Your task to perform on an android device: Go to ESPN.com Image 0: 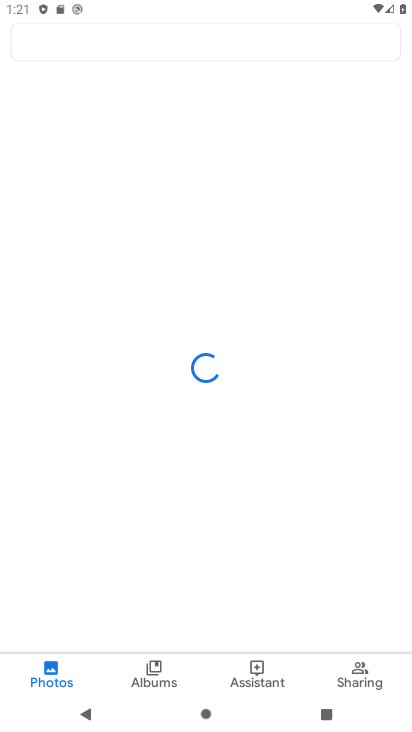
Step 0: press home button
Your task to perform on an android device: Go to ESPN.com Image 1: 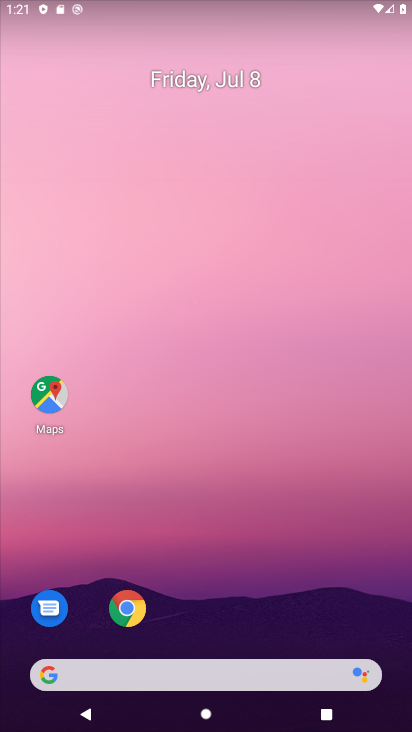
Step 1: drag from (173, 678) to (259, 225)
Your task to perform on an android device: Go to ESPN.com Image 2: 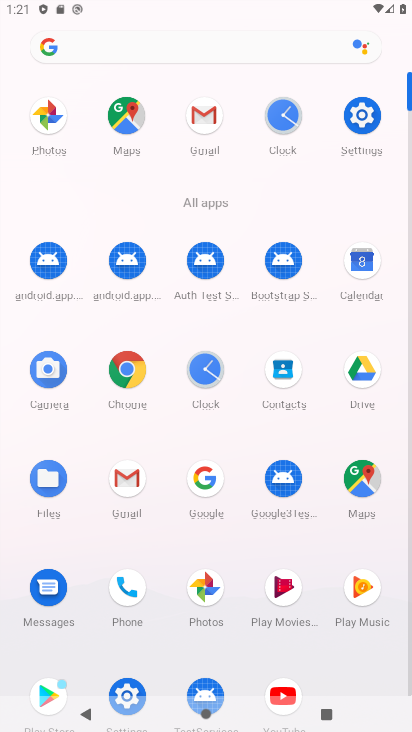
Step 2: click (133, 363)
Your task to perform on an android device: Go to ESPN.com Image 3: 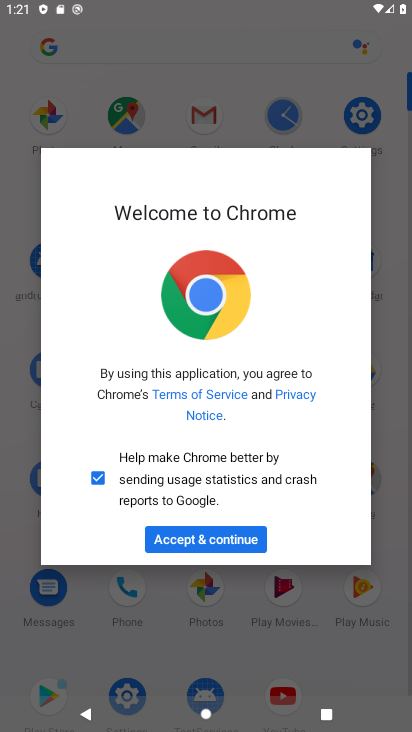
Step 3: click (253, 549)
Your task to perform on an android device: Go to ESPN.com Image 4: 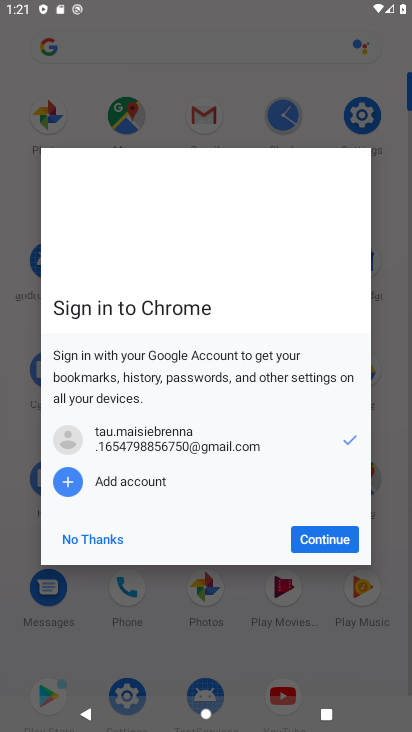
Step 4: click (314, 535)
Your task to perform on an android device: Go to ESPN.com Image 5: 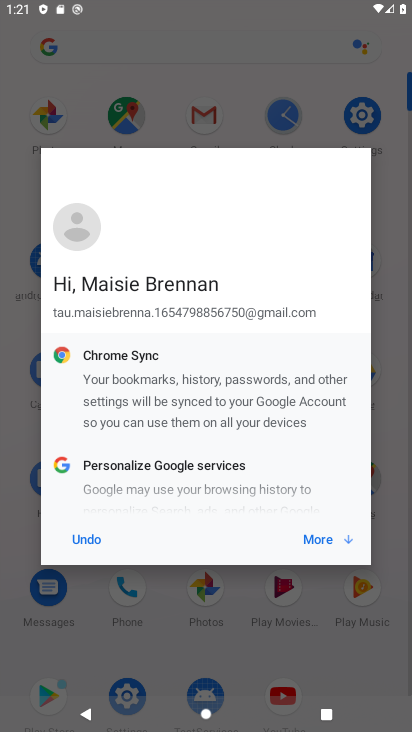
Step 5: click (337, 544)
Your task to perform on an android device: Go to ESPN.com Image 6: 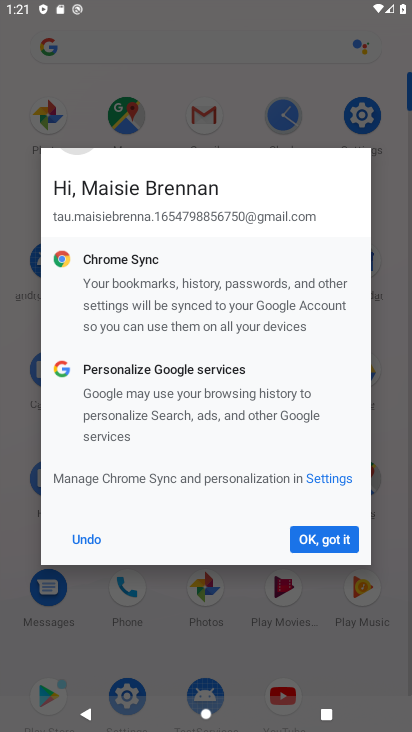
Step 6: click (337, 544)
Your task to perform on an android device: Go to ESPN.com Image 7: 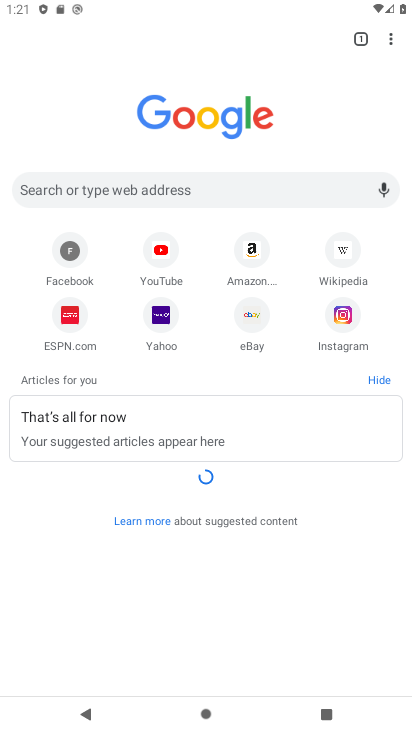
Step 7: click (77, 327)
Your task to perform on an android device: Go to ESPN.com Image 8: 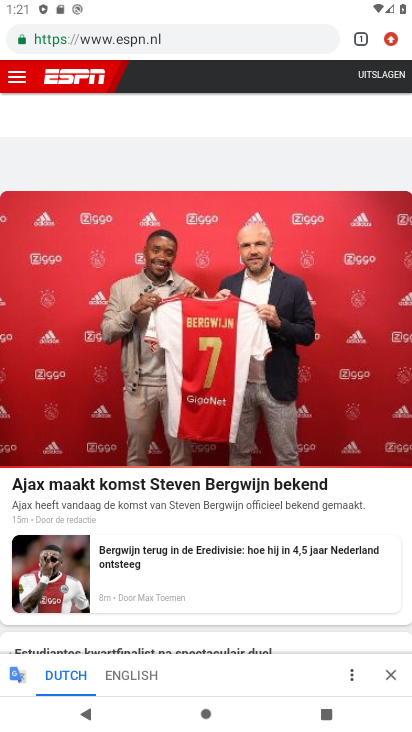
Step 8: task complete